Your task to perform on an android device: Go to ESPN.com Image 0: 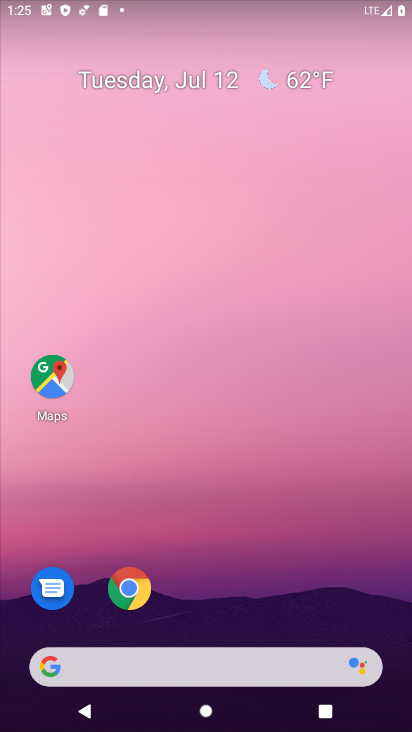
Step 0: click (174, 678)
Your task to perform on an android device: Go to ESPN.com Image 1: 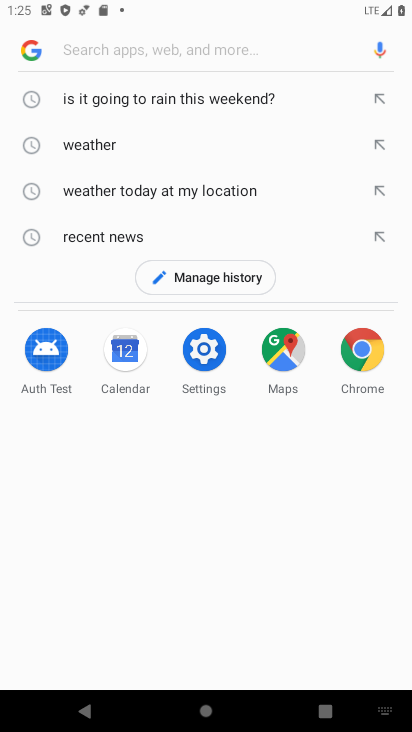
Step 1: type "espn.com"
Your task to perform on an android device: Go to ESPN.com Image 2: 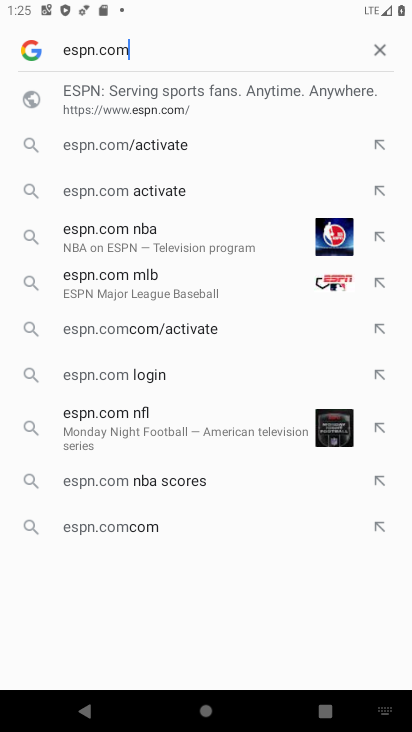
Step 2: click (107, 101)
Your task to perform on an android device: Go to ESPN.com Image 3: 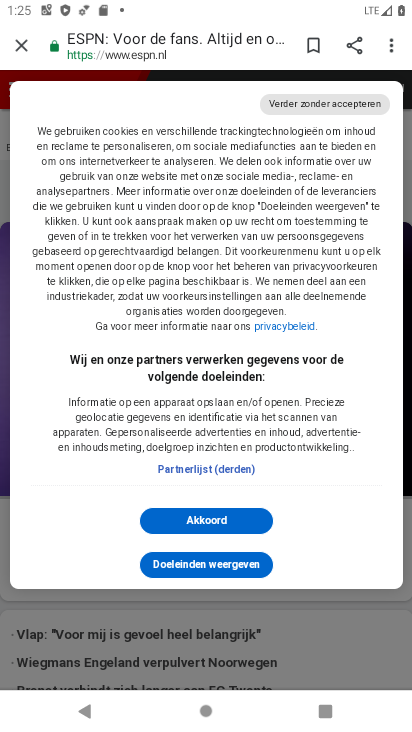
Step 3: task complete